Your task to perform on an android device: Open CNN.com Image 0: 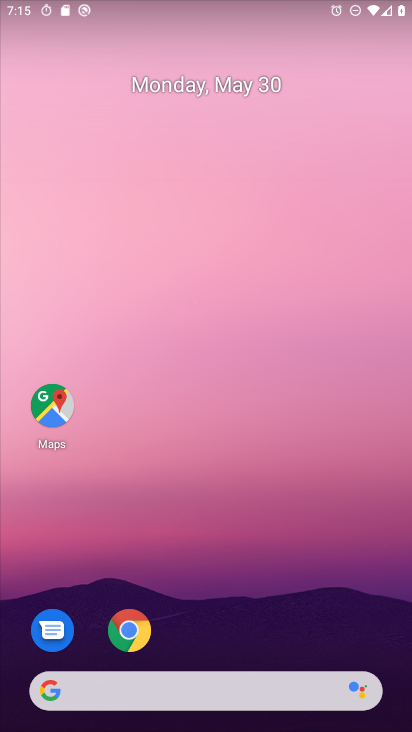
Step 0: drag from (367, 612) to (235, 20)
Your task to perform on an android device: Open CNN.com Image 1: 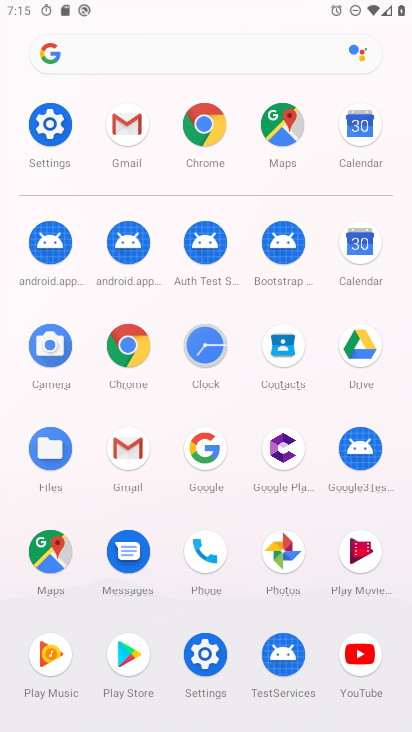
Step 1: click (203, 454)
Your task to perform on an android device: Open CNN.com Image 2: 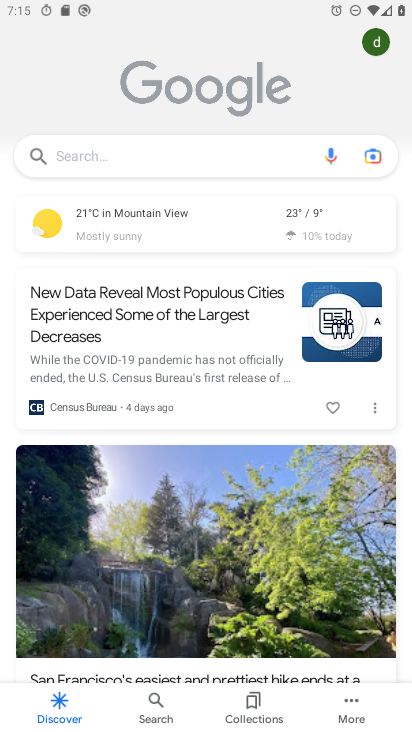
Step 2: click (188, 147)
Your task to perform on an android device: Open CNN.com Image 3: 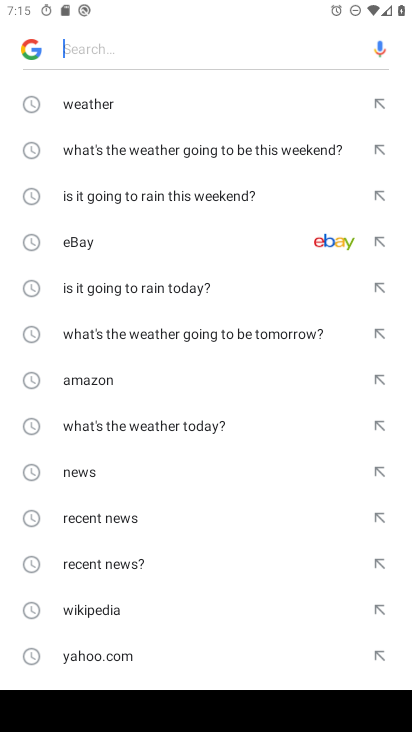
Step 3: drag from (131, 634) to (103, 79)
Your task to perform on an android device: Open CNN.com Image 4: 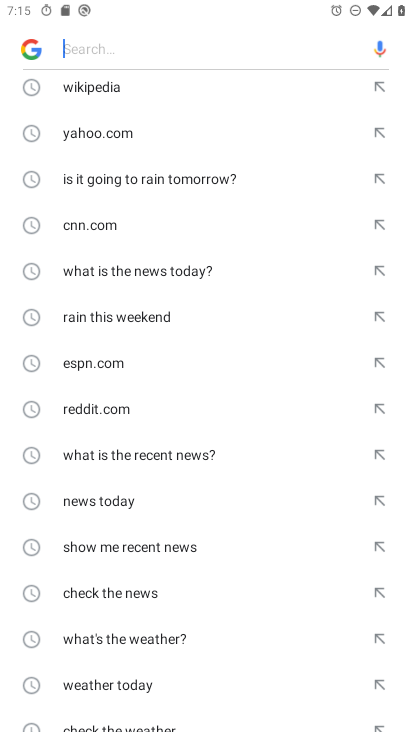
Step 4: drag from (109, 634) to (140, 130)
Your task to perform on an android device: Open CNN.com Image 5: 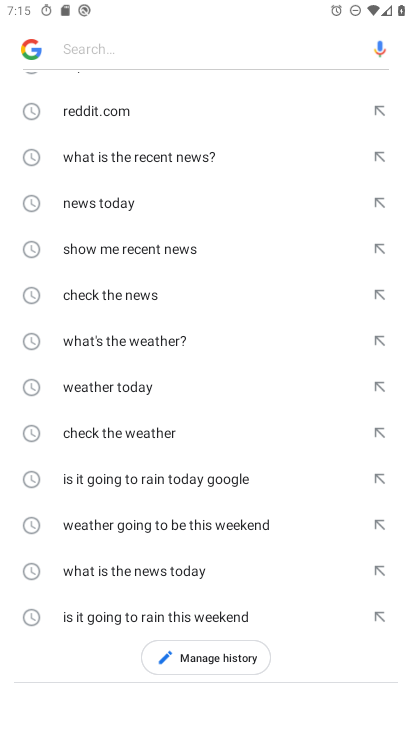
Step 5: drag from (169, 151) to (185, 625)
Your task to perform on an android device: Open CNN.com Image 6: 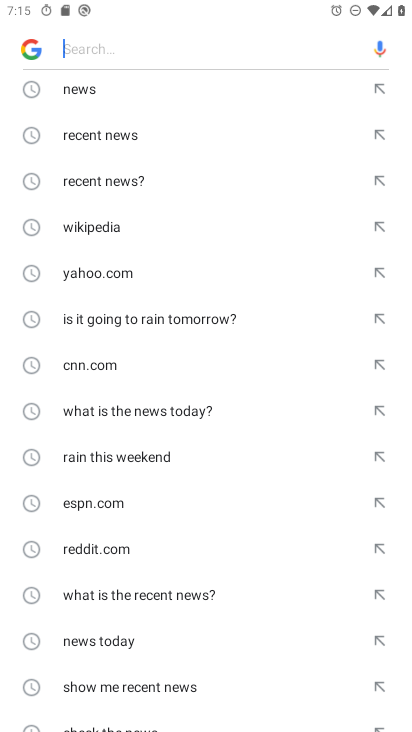
Step 6: drag from (155, 164) to (200, 511)
Your task to perform on an android device: Open CNN.com Image 7: 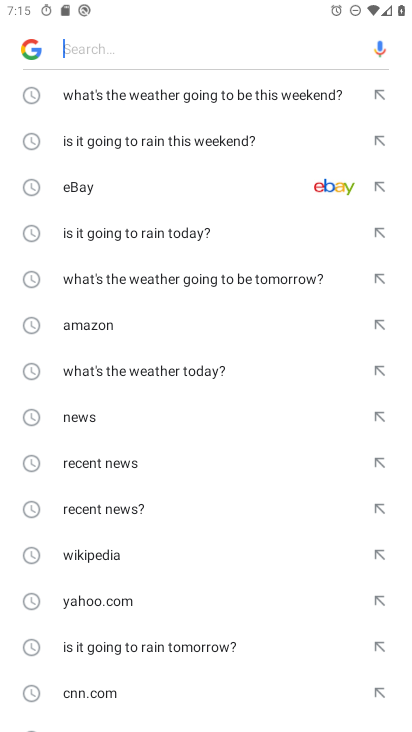
Step 7: click (103, 683)
Your task to perform on an android device: Open CNN.com Image 8: 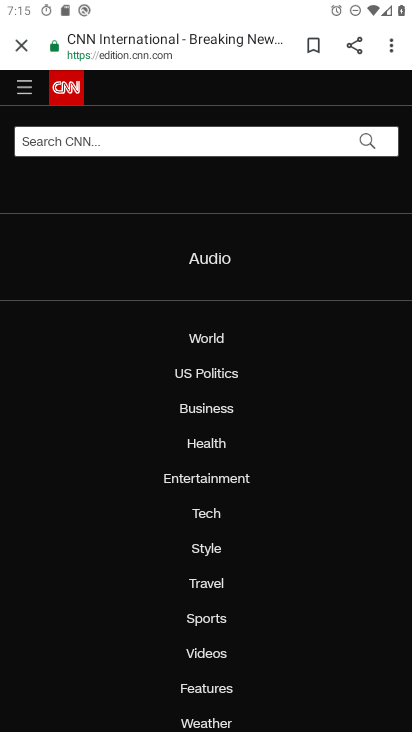
Step 8: task complete